Your task to perform on an android device: Go to Wikipedia Image 0: 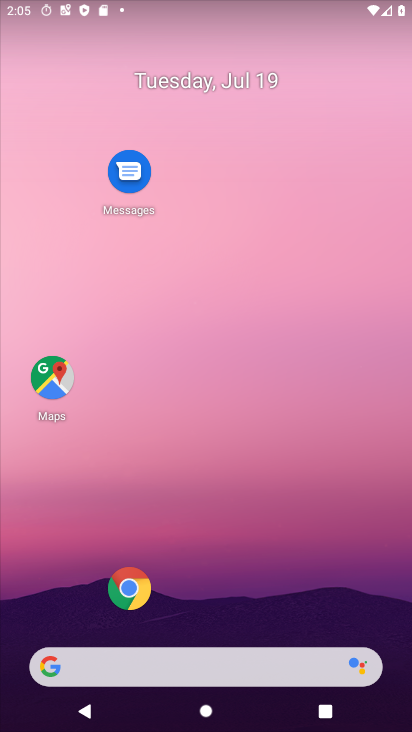
Step 0: click (117, 670)
Your task to perform on an android device: Go to Wikipedia Image 1: 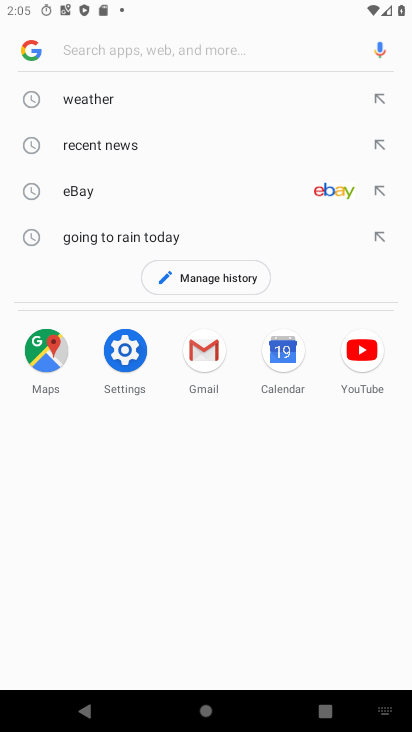
Step 1: type "Wikipedia"
Your task to perform on an android device: Go to Wikipedia Image 2: 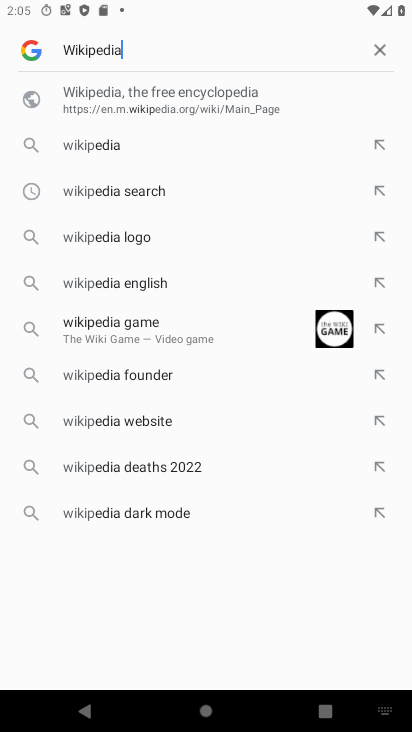
Step 2: type ""
Your task to perform on an android device: Go to Wikipedia Image 3: 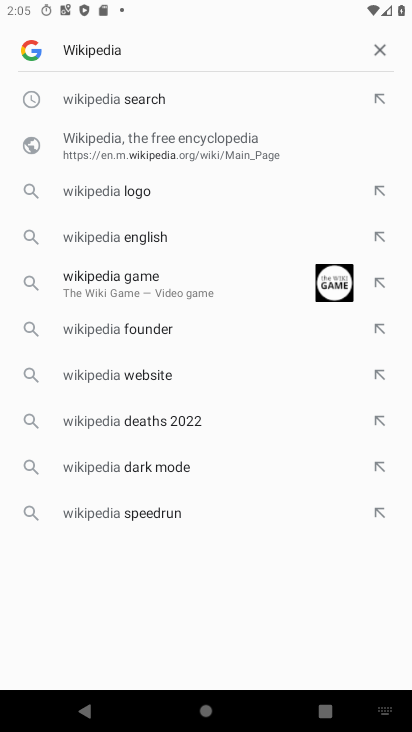
Step 3: task complete